Your task to perform on an android device: turn off picture-in-picture Image 0: 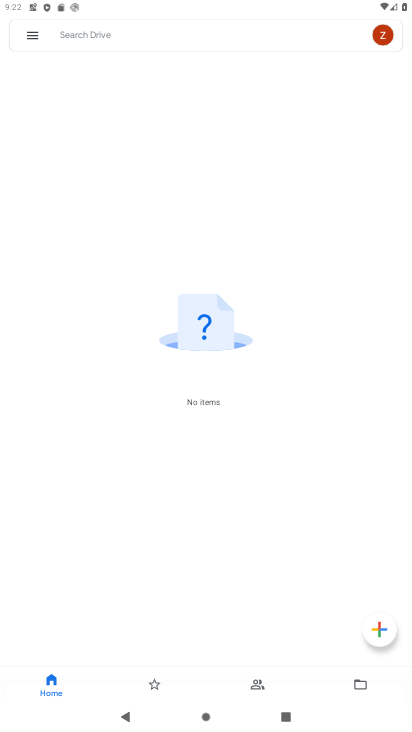
Step 0: press home button
Your task to perform on an android device: turn off picture-in-picture Image 1: 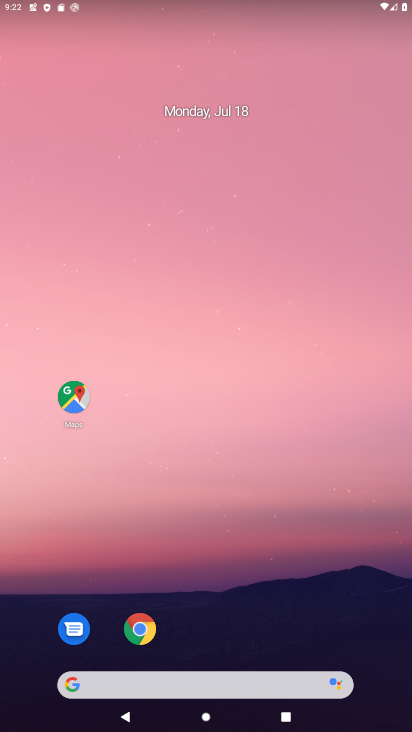
Step 1: drag from (288, 565) to (267, 65)
Your task to perform on an android device: turn off picture-in-picture Image 2: 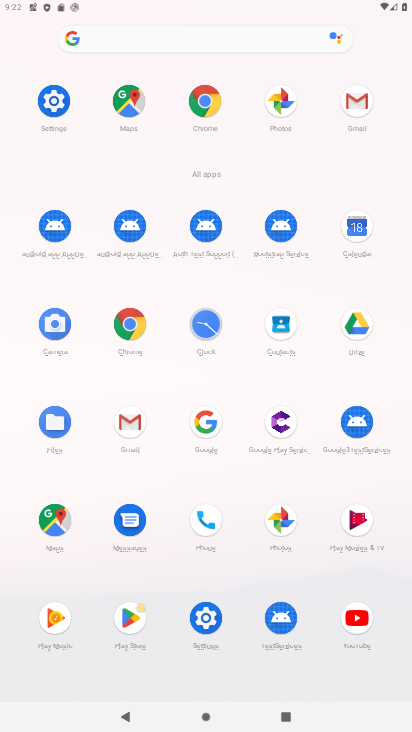
Step 2: click (205, 98)
Your task to perform on an android device: turn off picture-in-picture Image 3: 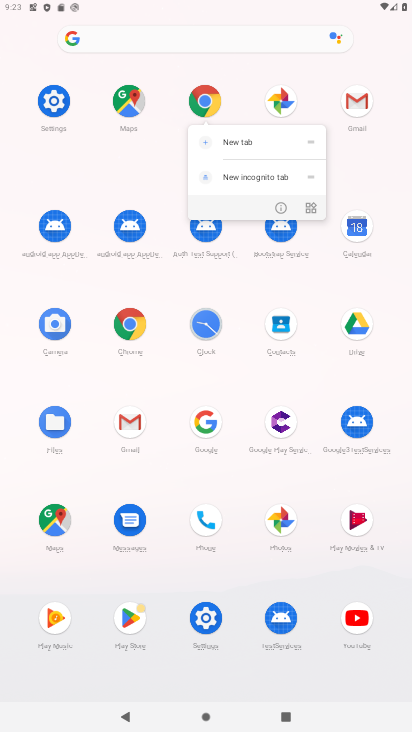
Step 3: click (281, 207)
Your task to perform on an android device: turn off picture-in-picture Image 4: 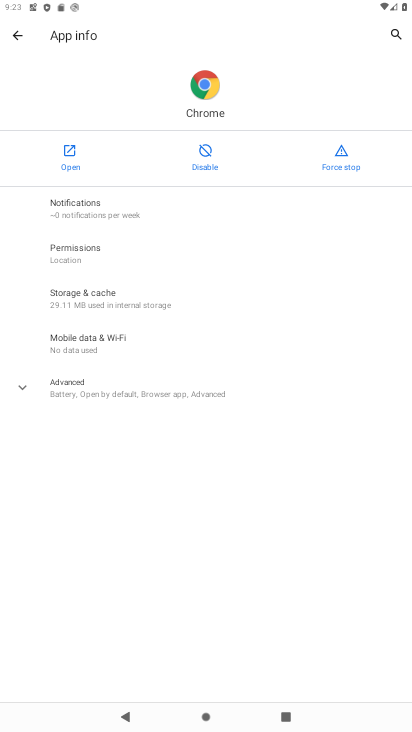
Step 4: click (150, 399)
Your task to perform on an android device: turn off picture-in-picture Image 5: 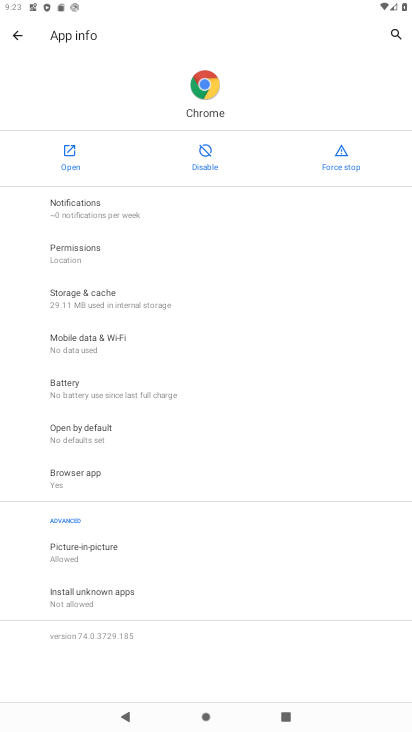
Step 5: click (90, 556)
Your task to perform on an android device: turn off picture-in-picture Image 6: 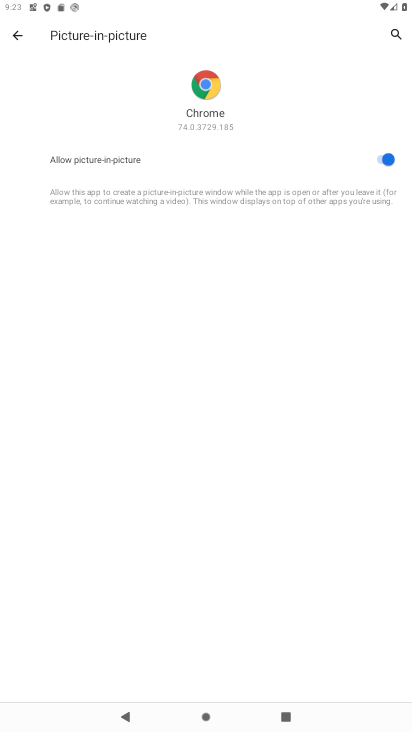
Step 6: click (381, 167)
Your task to perform on an android device: turn off picture-in-picture Image 7: 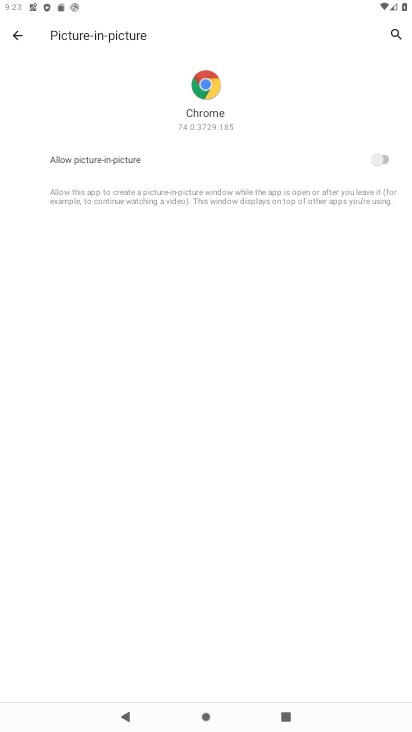
Step 7: task complete